Your task to perform on an android device: see tabs open on other devices in the chrome app Image 0: 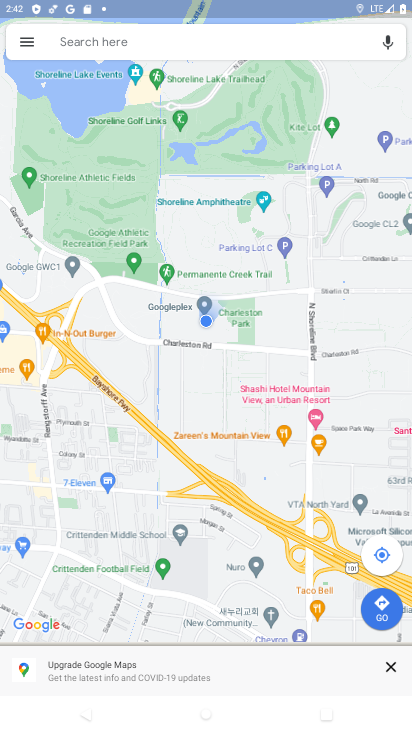
Step 0: press home button
Your task to perform on an android device: see tabs open on other devices in the chrome app Image 1: 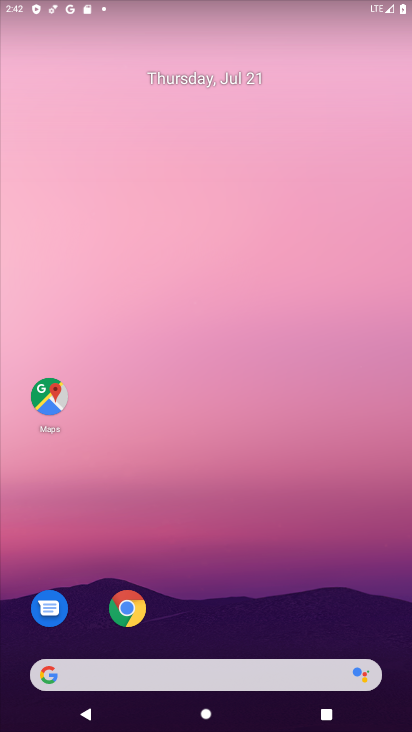
Step 1: drag from (199, 644) to (170, 113)
Your task to perform on an android device: see tabs open on other devices in the chrome app Image 2: 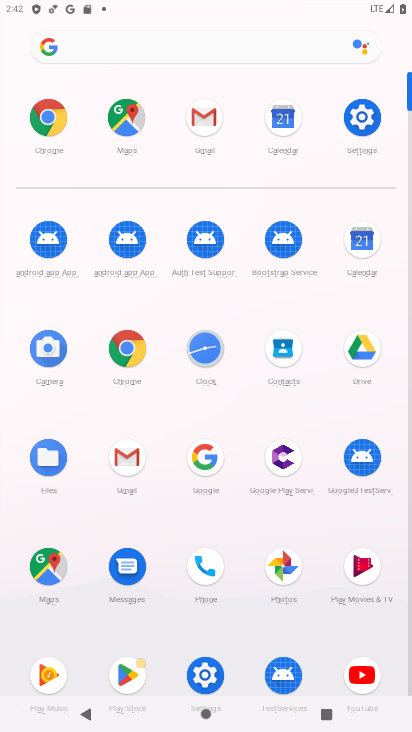
Step 2: click (131, 350)
Your task to perform on an android device: see tabs open on other devices in the chrome app Image 3: 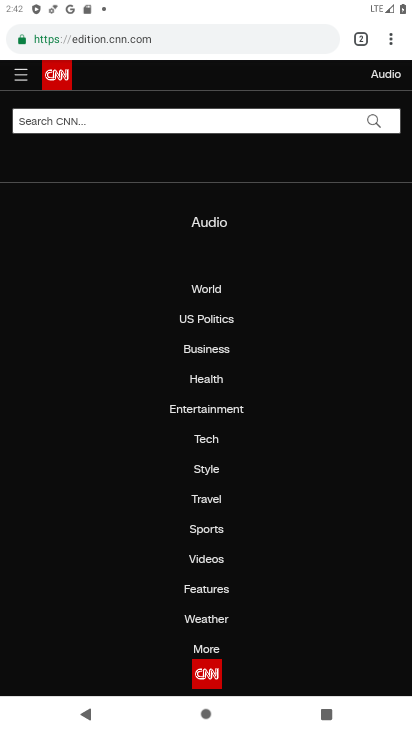
Step 3: click (353, 41)
Your task to perform on an android device: see tabs open on other devices in the chrome app Image 4: 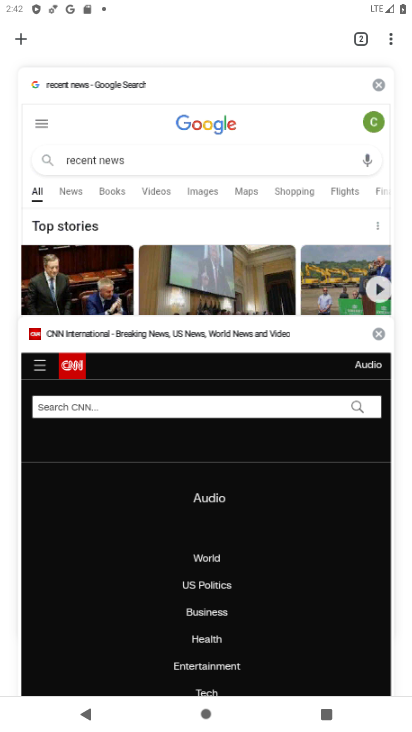
Step 4: task complete